Your task to perform on an android device: Do I have any events tomorrow? Image 0: 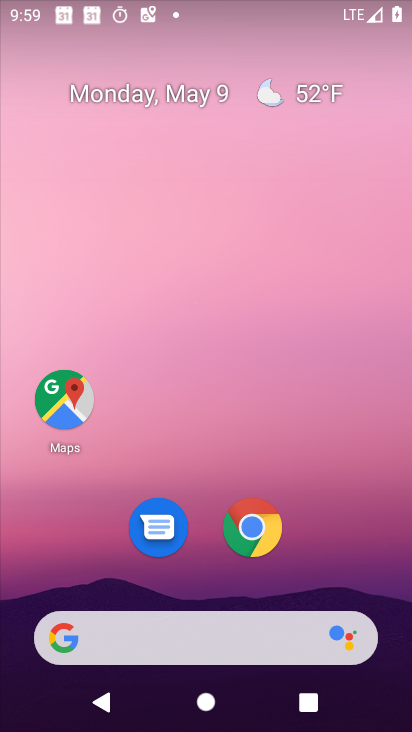
Step 0: press home button
Your task to perform on an android device: Do I have any events tomorrow? Image 1: 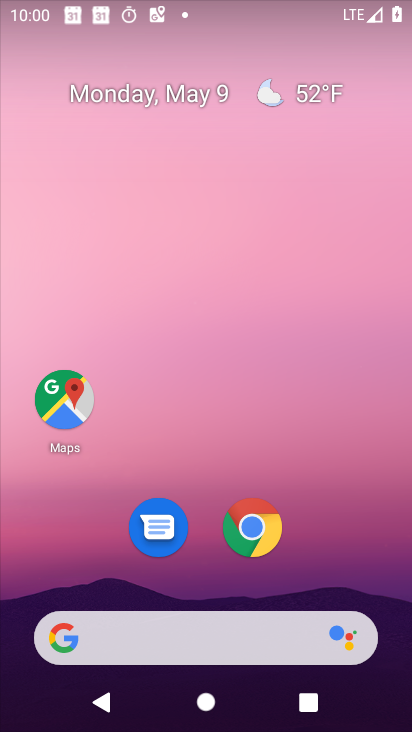
Step 1: drag from (360, 574) to (404, 142)
Your task to perform on an android device: Do I have any events tomorrow? Image 2: 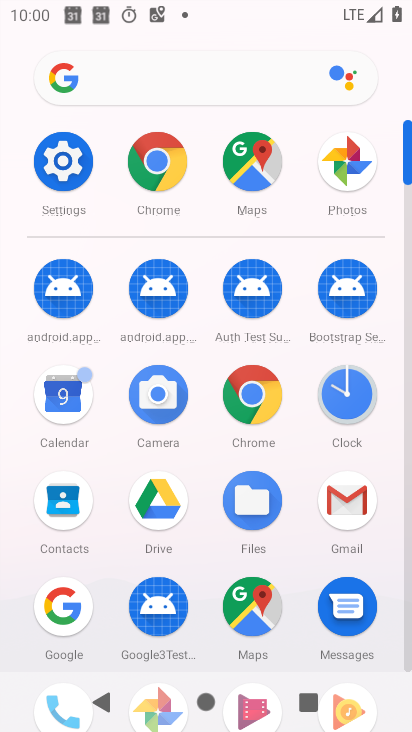
Step 2: click (124, 143)
Your task to perform on an android device: Do I have any events tomorrow? Image 3: 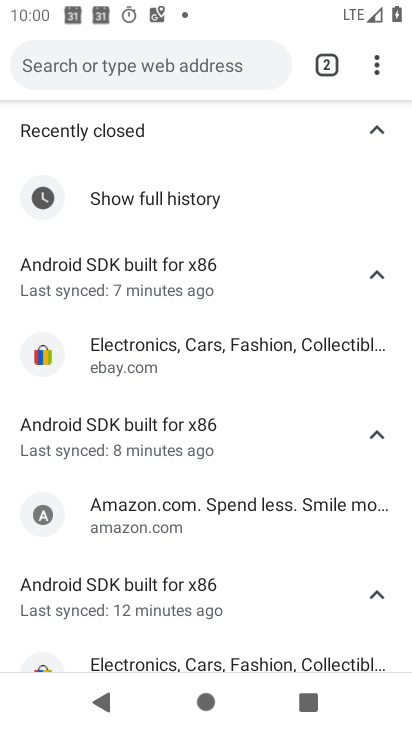
Step 3: click (253, 71)
Your task to perform on an android device: Do I have any events tomorrow? Image 4: 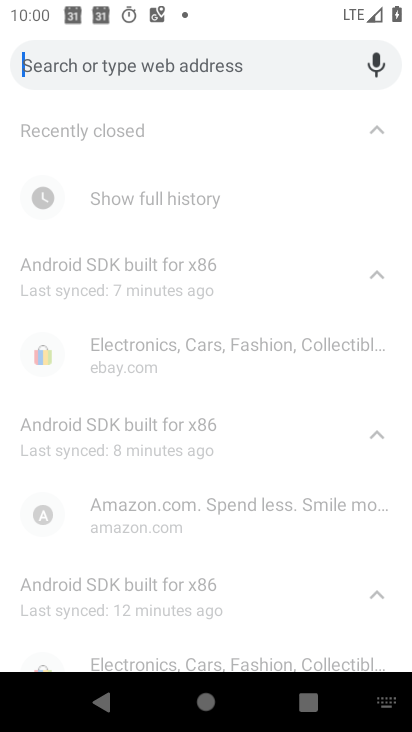
Step 4: type "do i have any event tomorrow"
Your task to perform on an android device: Do I have any events tomorrow? Image 5: 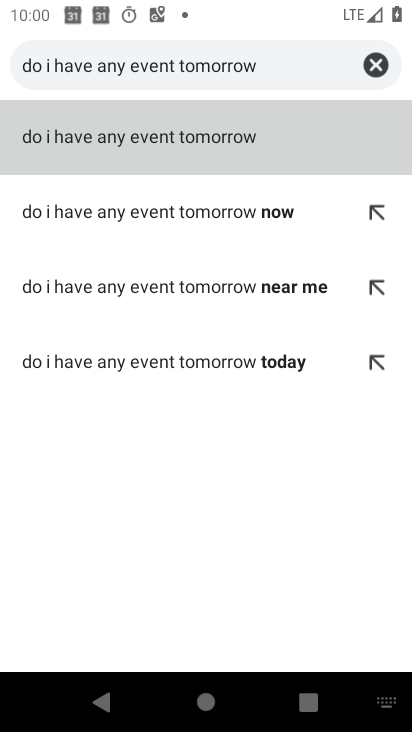
Step 5: click (207, 152)
Your task to perform on an android device: Do I have any events tomorrow? Image 6: 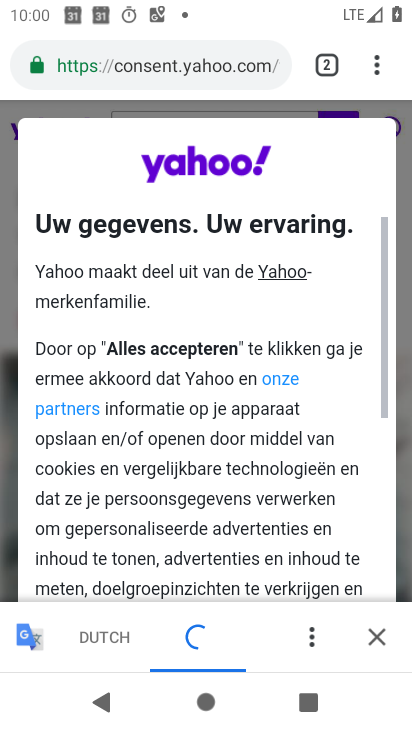
Step 6: click (375, 636)
Your task to perform on an android device: Do I have any events tomorrow? Image 7: 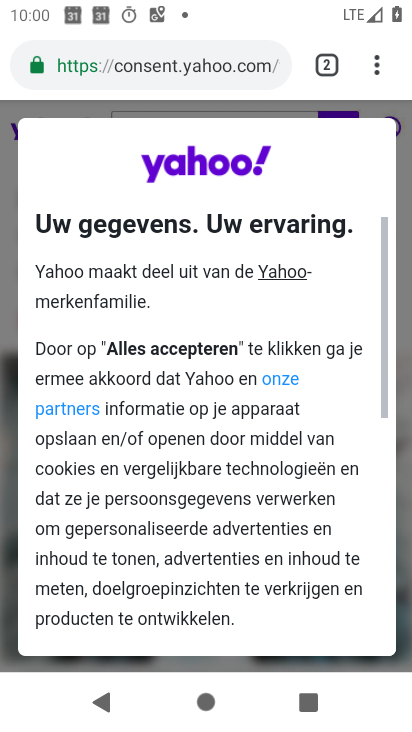
Step 7: task complete